Your task to perform on an android device: open app "Pandora - Music & Podcasts" (install if not already installed) and go to login screen Image 0: 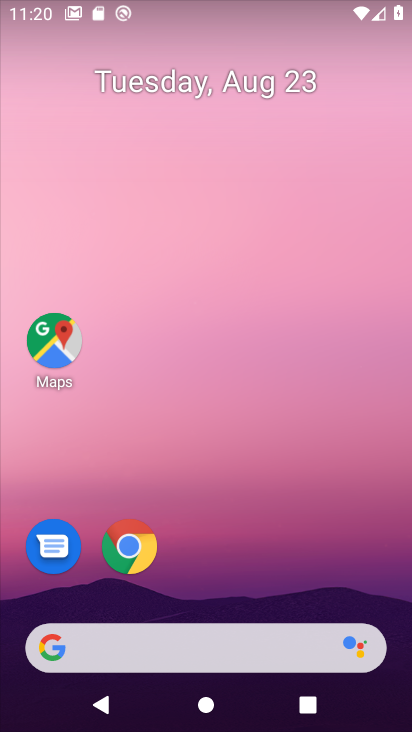
Step 0: drag from (201, 601) to (231, 57)
Your task to perform on an android device: open app "Pandora - Music & Podcasts" (install if not already installed) and go to login screen Image 1: 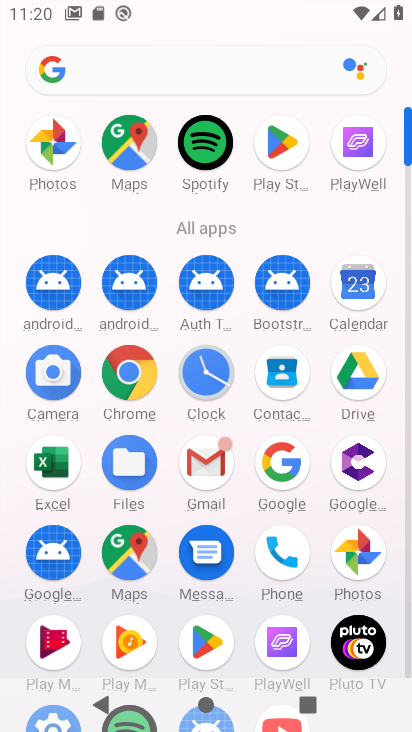
Step 1: click (277, 140)
Your task to perform on an android device: open app "Pandora - Music & Podcasts" (install if not already installed) and go to login screen Image 2: 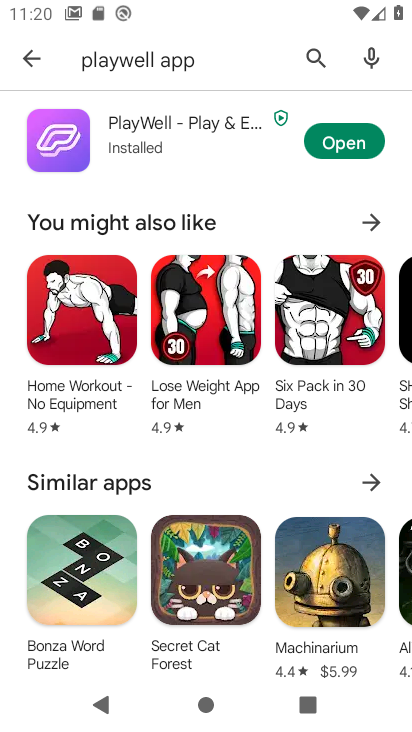
Step 2: click (29, 62)
Your task to perform on an android device: open app "Pandora - Music & Podcasts" (install if not already installed) and go to login screen Image 3: 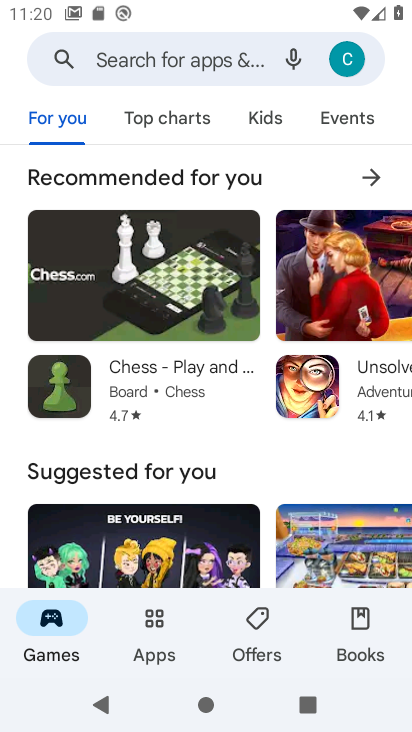
Step 3: click (165, 52)
Your task to perform on an android device: open app "Pandora - Music & Podcasts" (install if not already installed) and go to login screen Image 4: 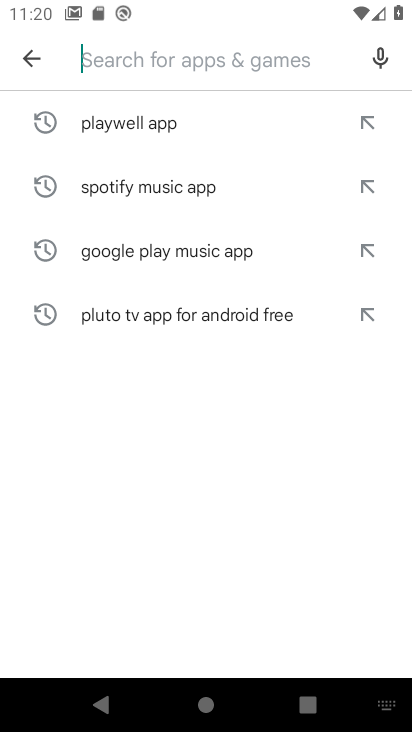
Step 4: type "Pandora - Music & Podcasts "
Your task to perform on an android device: open app "Pandora - Music & Podcasts" (install if not already installed) and go to login screen Image 5: 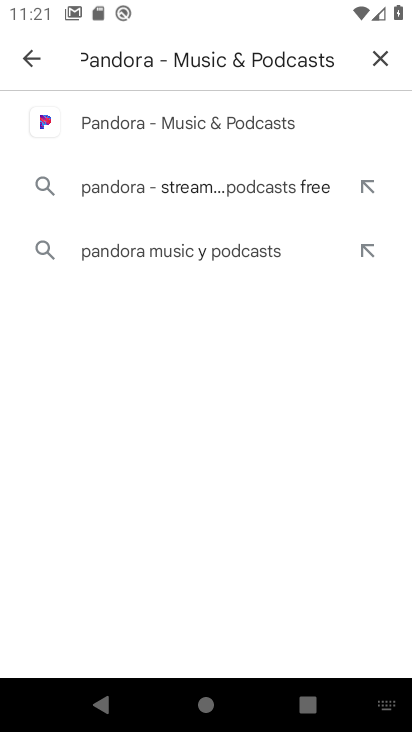
Step 5: click (146, 128)
Your task to perform on an android device: open app "Pandora - Music & Podcasts" (install if not already installed) and go to login screen Image 6: 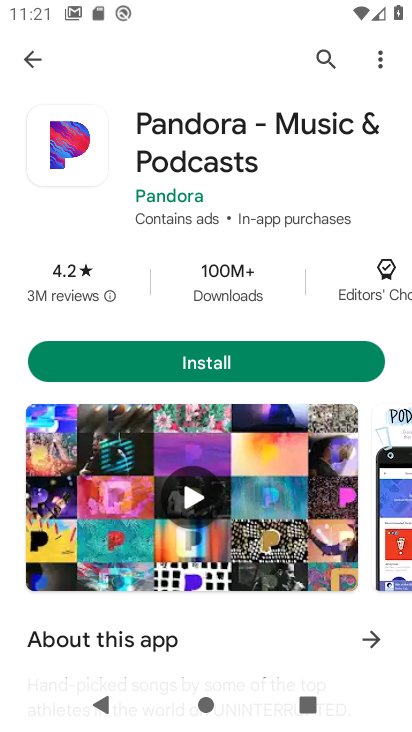
Step 6: click (242, 361)
Your task to perform on an android device: open app "Pandora - Music & Podcasts" (install if not already installed) and go to login screen Image 7: 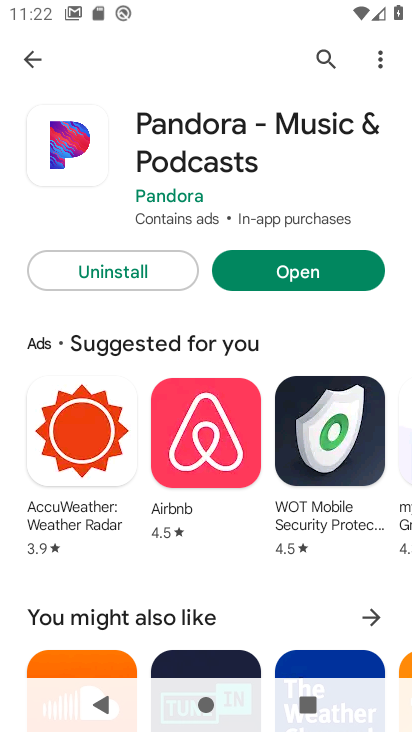
Step 7: task complete